Your task to perform on an android device: Go to internet settings Image 0: 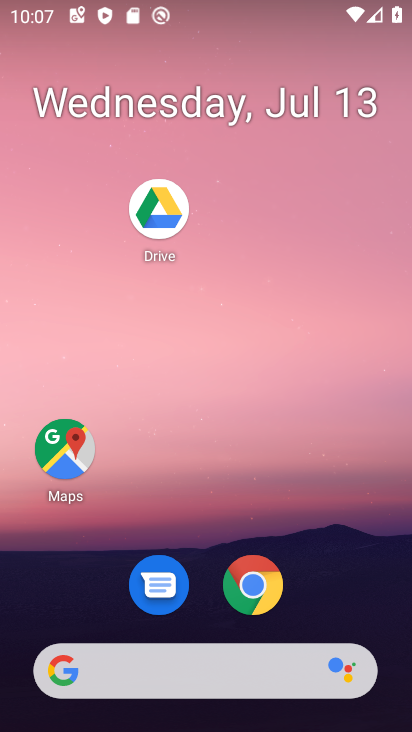
Step 0: press home button
Your task to perform on an android device: Go to internet settings Image 1: 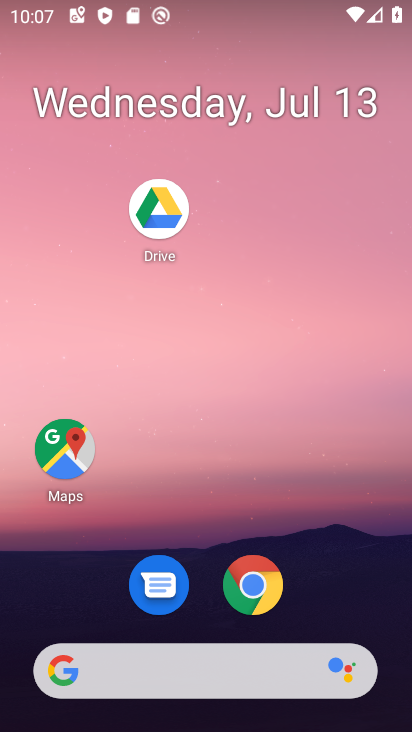
Step 1: drag from (198, 680) to (347, 88)
Your task to perform on an android device: Go to internet settings Image 2: 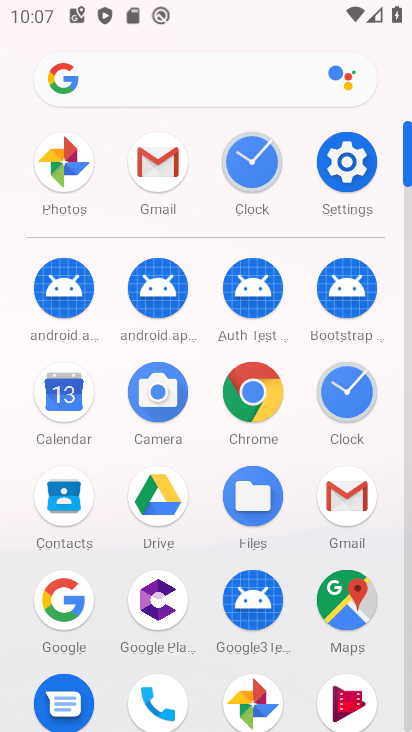
Step 2: click (341, 173)
Your task to perform on an android device: Go to internet settings Image 3: 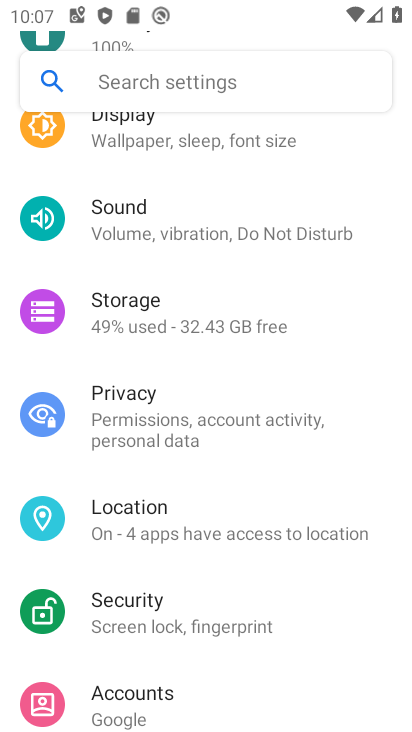
Step 3: drag from (322, 159) to (288, 539)
Your task to perform on an android device: Go to internet settings Image 4: 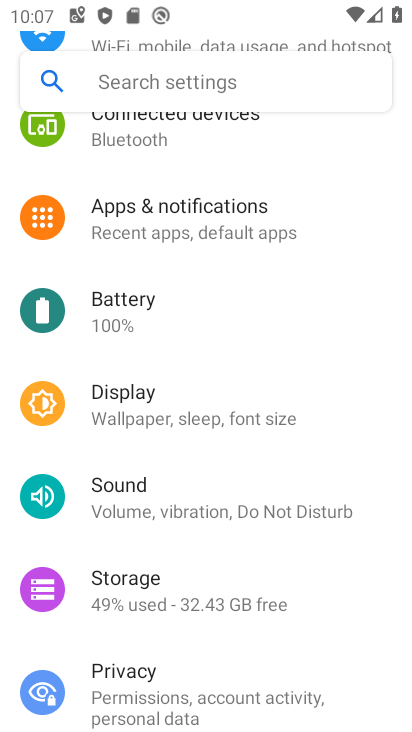
Step 4: drag from (308, 180) to (274, 481)
Your task to perform on an android device: Go to internet settings Image 5: 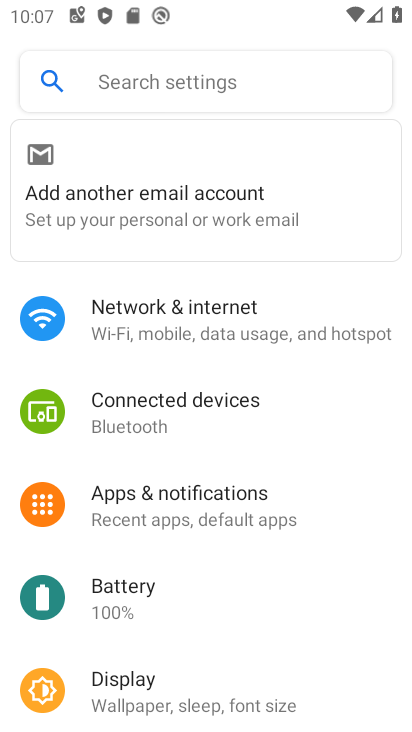
Step 5: click (254, 327)
Your task to perform on an android device: Go to internet settings Image 6: 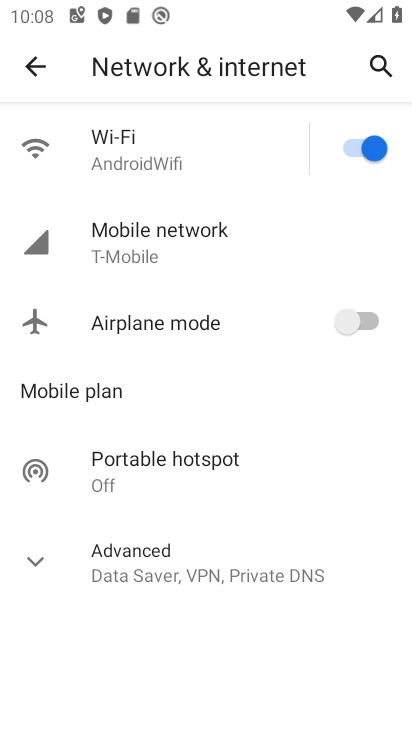
Step 6: task complete